Your task to perform on an android device: What's the weather? Image 0: 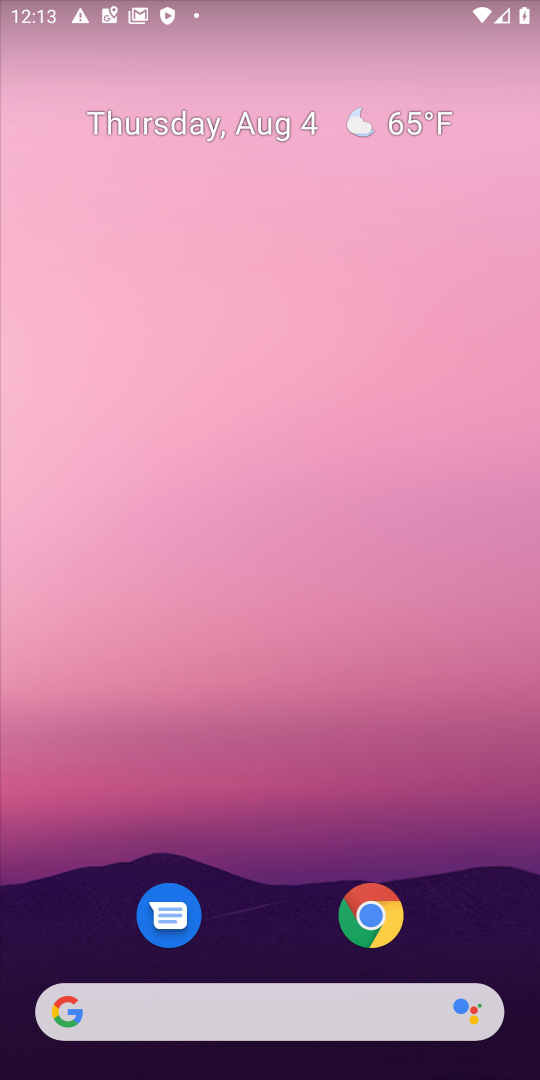
Step 0: click (308, 1011)
Your task to perform on an android device: What's the weather? Image 1: 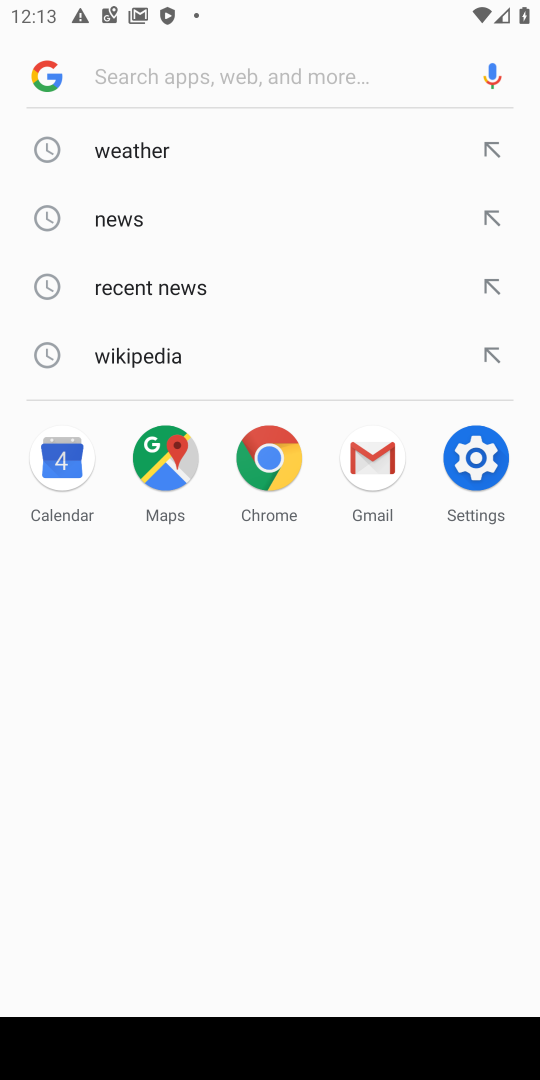
Step 1: click (145, 154)
Your task to perform on an android device: What's the weather? Image 2: 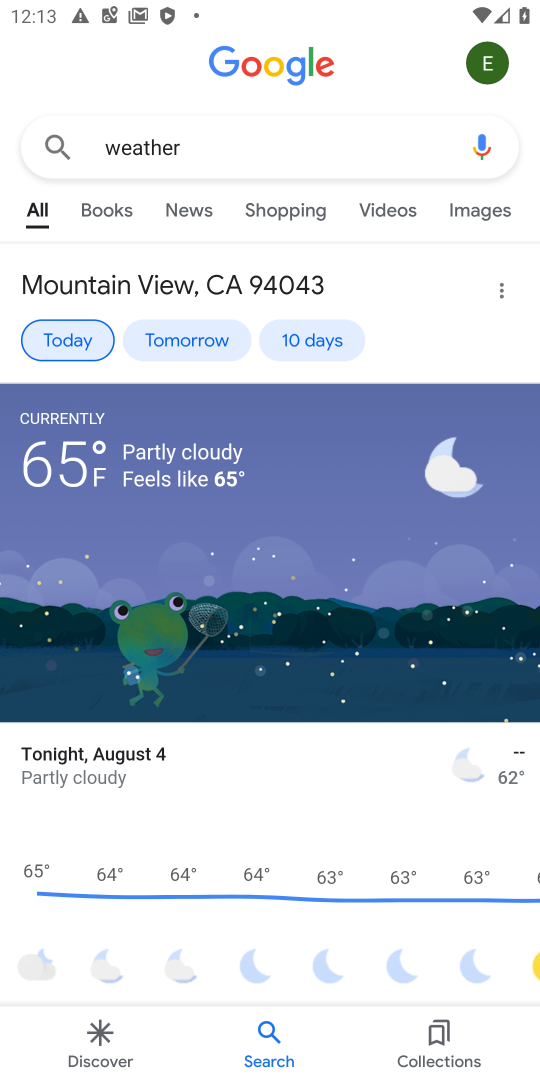
Step 2: task complete